Your task to perform on an android device: turn on location history Image 0: 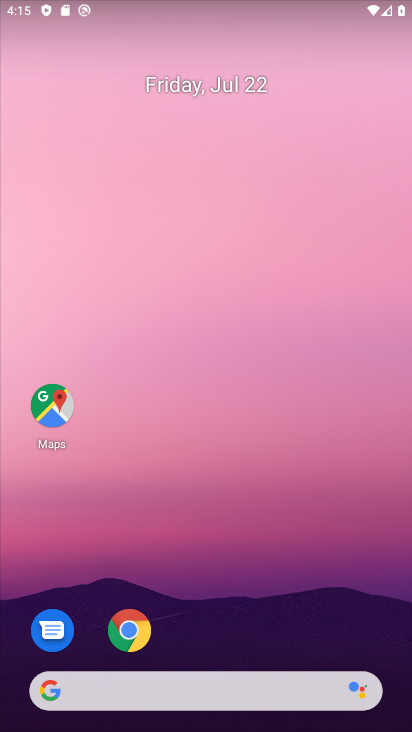
Step 0: drag from (190, 519) to (194, 182)
Your task to perform on an android device: turn on location history Image 1: 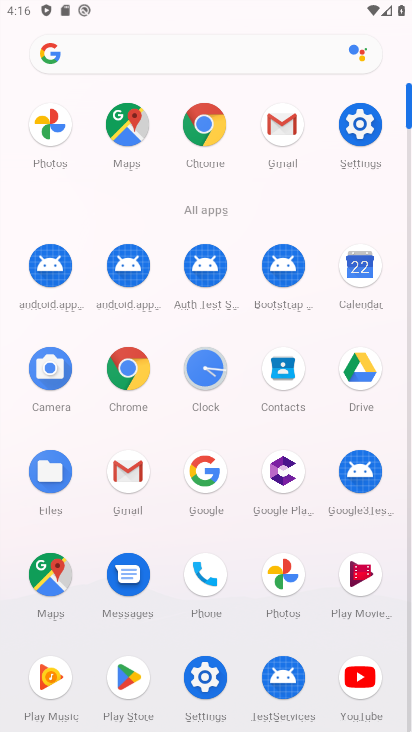
Step 1: click (360, 137)
Your task to perform on an android device: turn on location history Image 2: 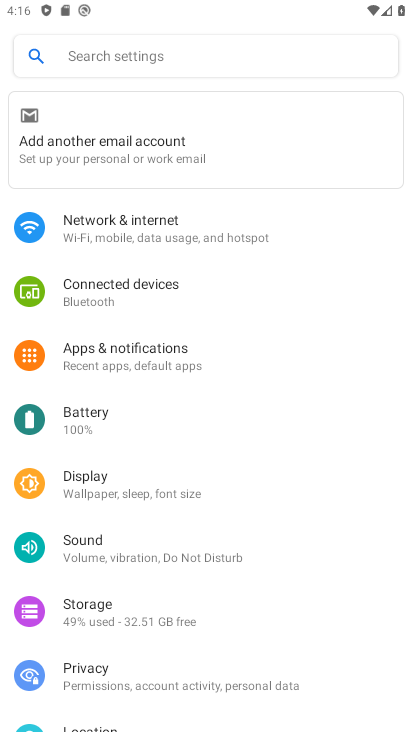
Step 2: drag from (144, 451) to (141, 339)
Your task to perform on an android device: turn on location history Image 3: 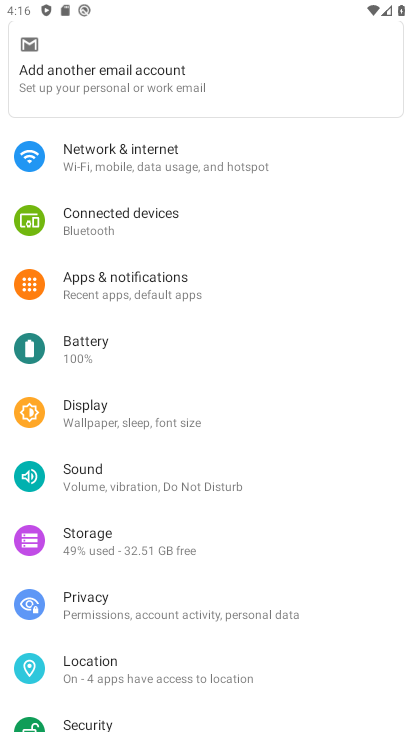
Step 3: click (122, 672)
Your task to perform on an android device: turn on location history Image 4: 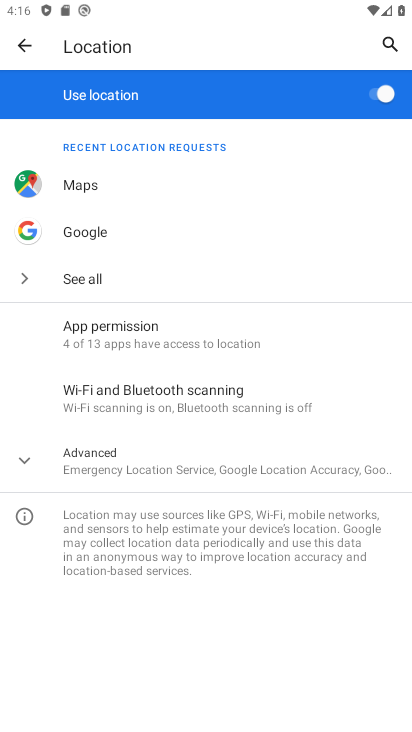
Step 4: click (125, 453)
Your task to perform on an android device: turn on location history Image 5: 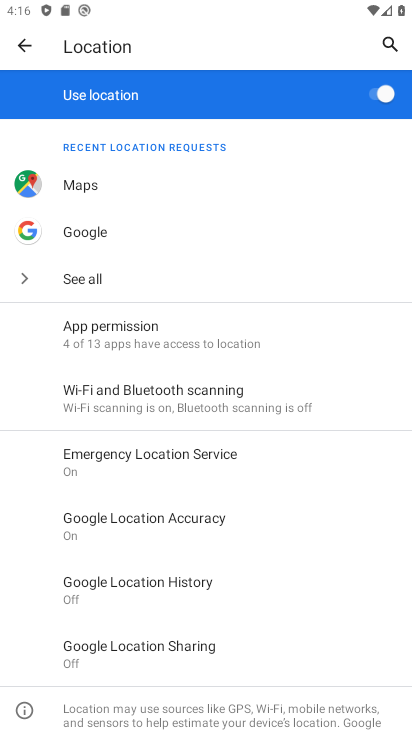
Step 5: click (95, 577)
Your task to perform on an android device: turn on location history Image 6: 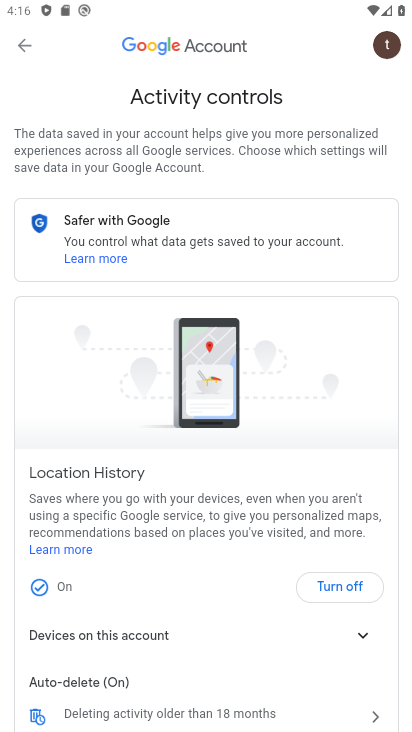
Step 6: task complete